Your task to perform on an android device: See recent photos Image 0: 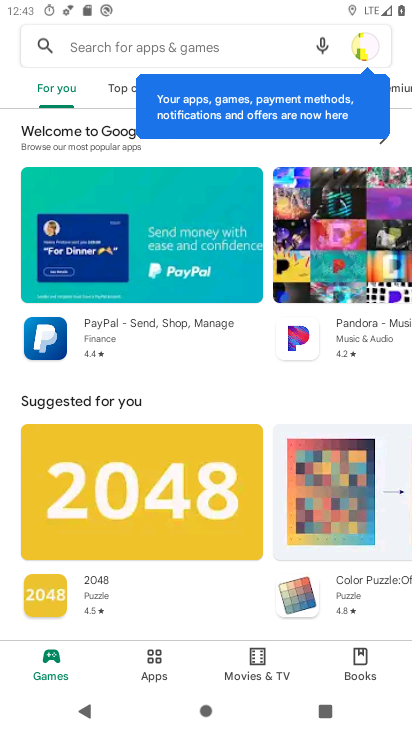
Step 0: press home button
Your task to perform on an android device: See recent photos Image 1: 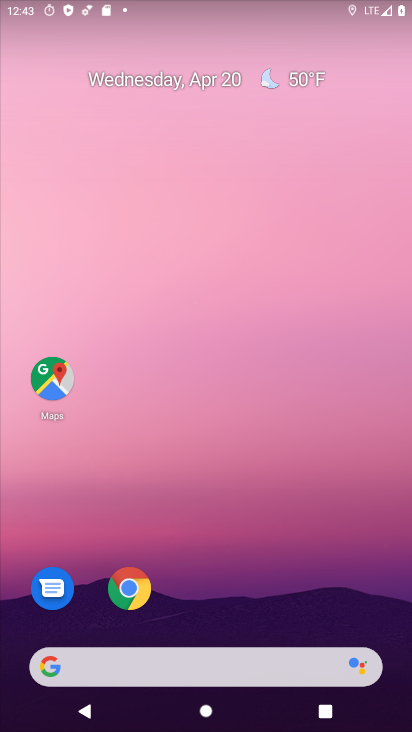
Step 1: drag from (187, 612) to (287, 4)
Your task to perform on an android device: See recent photos Image 2: 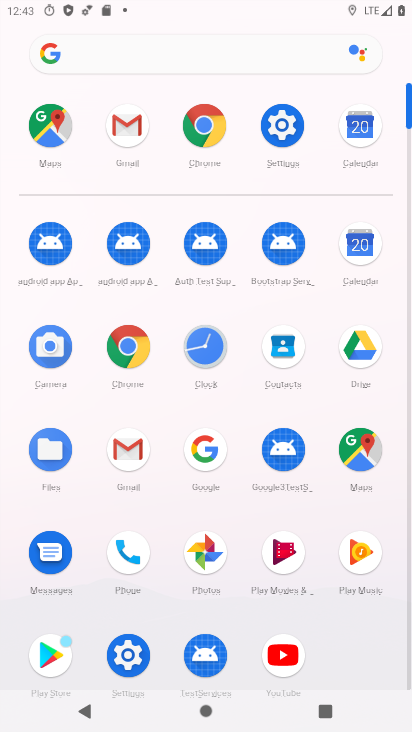
Step 2: click (196, 545)
Your task to perform on an android device: See recent photos Image 3: 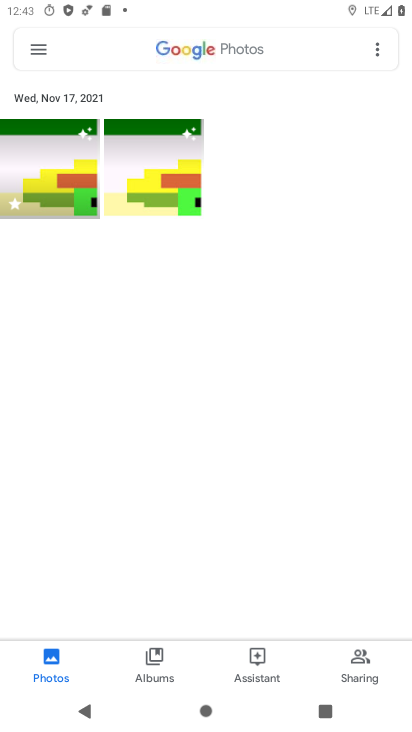
Step 3: task complete